Your task to perform on an android device: stop showing notifications on the lock screen Image 0: 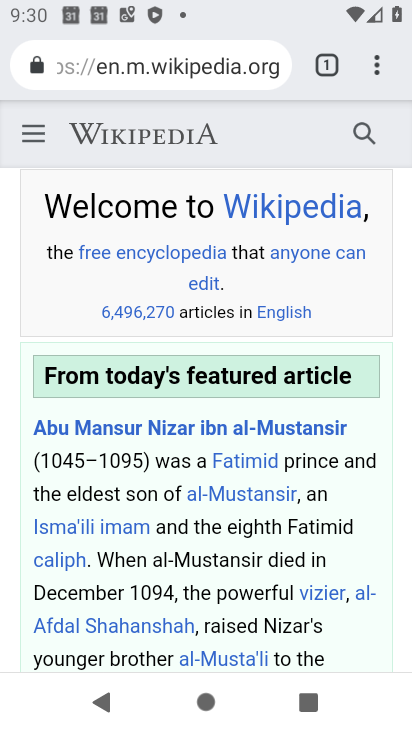
Step 0: press home button
Your task to perform on an android device: stop showing notifications on the lock screen Image 1: 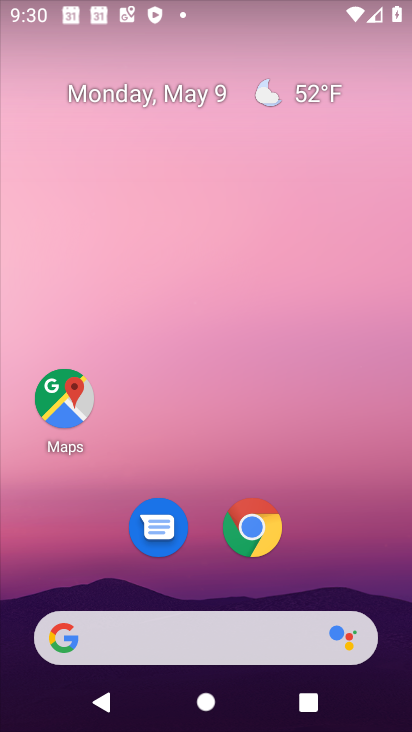
Step 1: drag from (214, 576) to (185, 190)
Your task to perform on an android device: stop showing notifications on the lock screen Image 2: 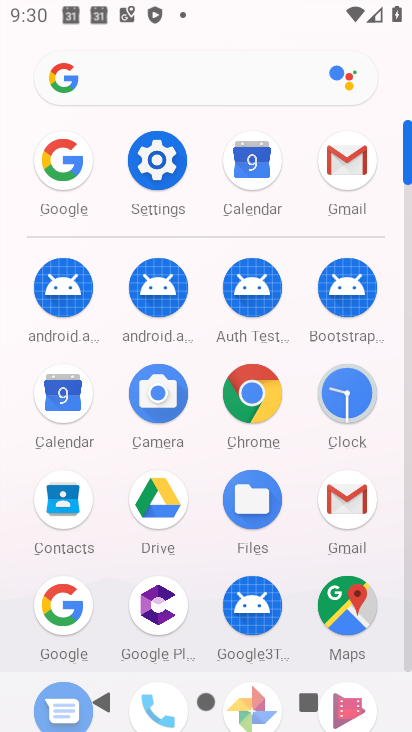
Step 2: click (156, 157)
Your task to perform on an android device: stop showing notifications on the lock screen Image 3: 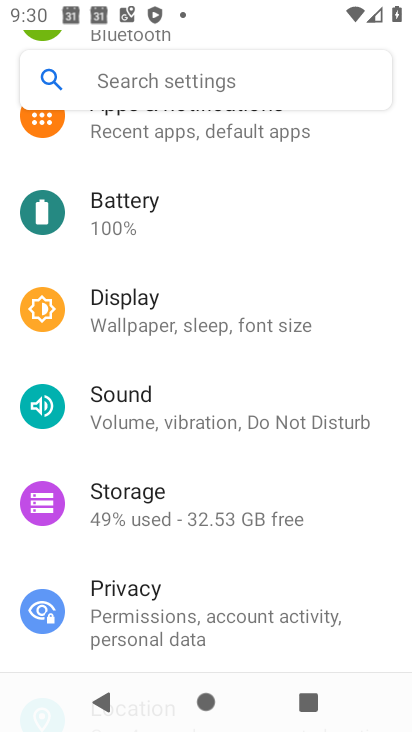
Step 3: drag from (195, 228) to (219, 635)
Your task to perform on an android device: stop showing notifications on the lock screen Image 4: 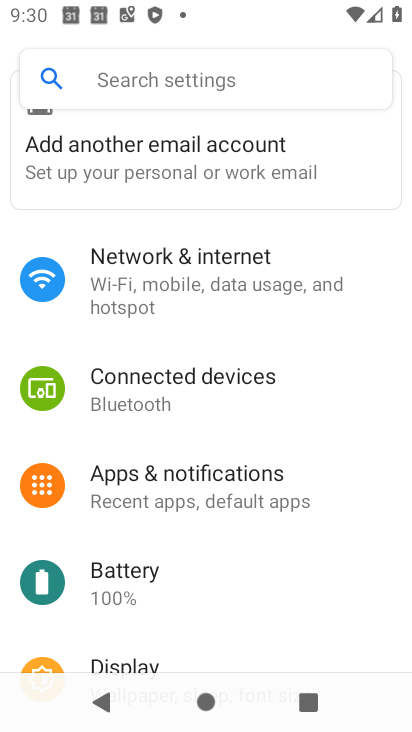
Step 4: click (182, 485)
Your task to perform on an android device: stop showing notifications on the lock screen Image 5: 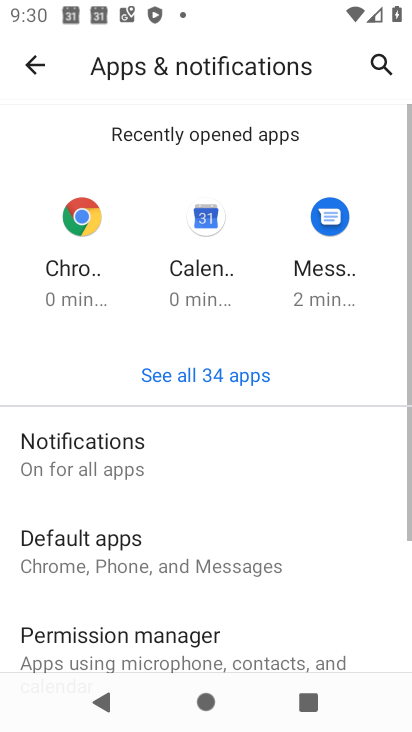
Step 5: click (143, 454)
Your task to perform on an android device: stop showing notifications on the lock screen Image 6: 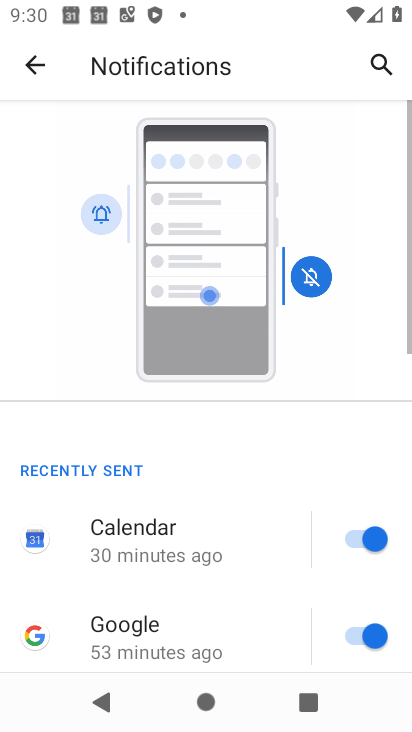
Step 6: drag from (221, 595) to (170, 113)
Your task to perform on an android device: stop showing notifications on the lock screen Image 7: 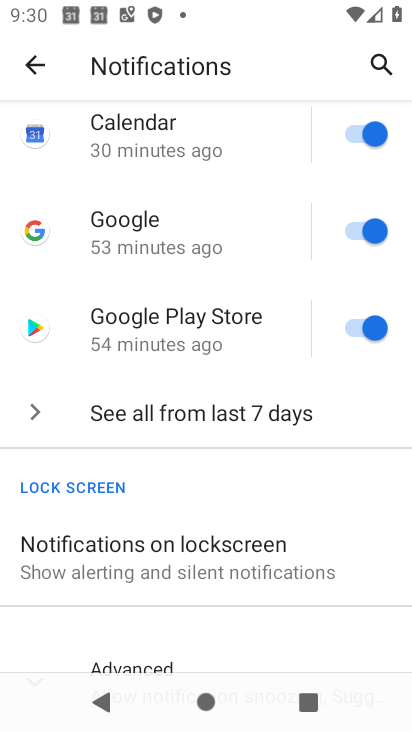
Step 7: click (197, 553)
Your task to perform on an android device: stop showing notifications on the lock screen Image 8: 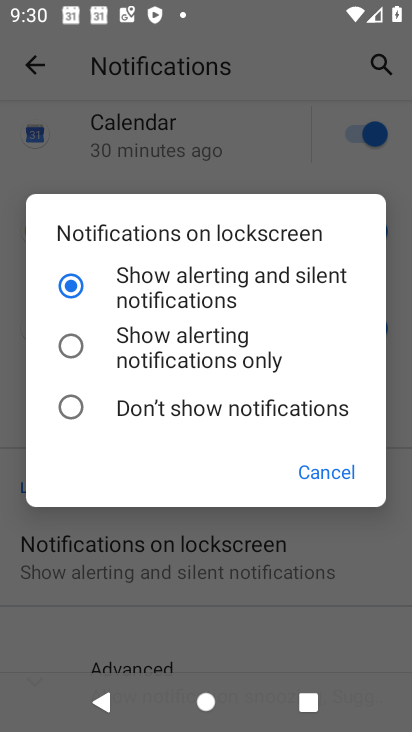
Step 8: click (72, 408)
Your task to perform on an android device: stop showing notifications on the lock screen Image 9: 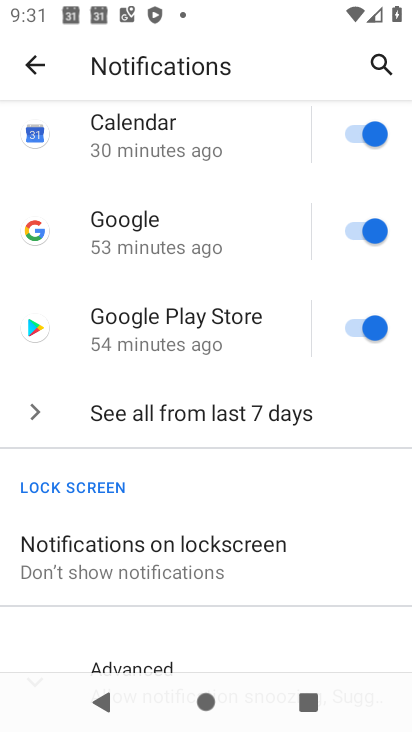
Step 9: task complete